Your task to perform on an android device: Toggle the flashlight Image 0: 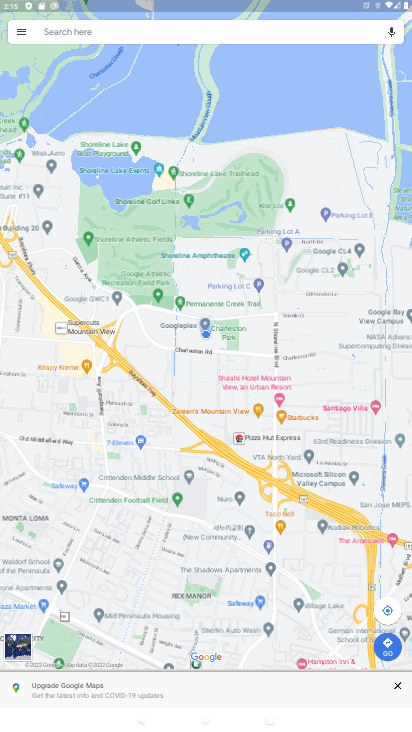
Step 0: press home button
Your task to perform on an android device: Toggle the flashlight Image 1: 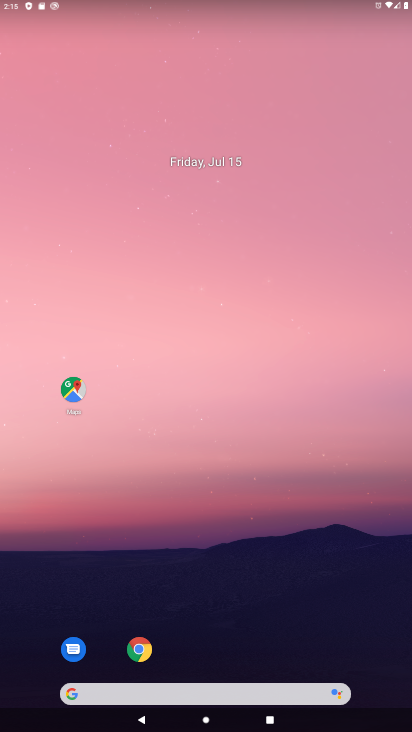
Step 1: drag from (183, 666) to (150, 224)
Your task to perform on an android device: Toggle the flashlight Image 2: 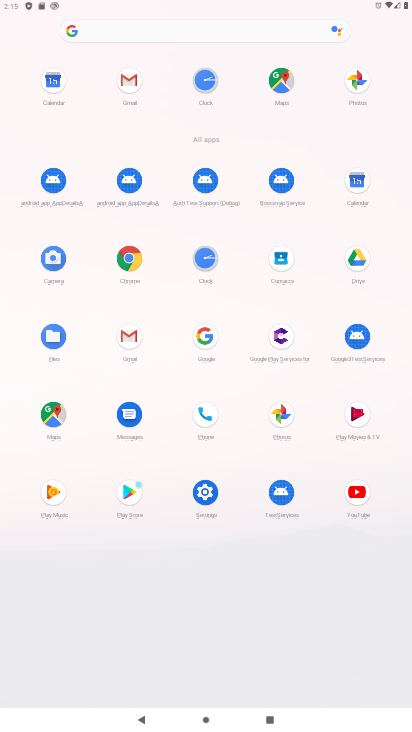
Step 2: click (208, 491)
Your task to perform on an android device: Toggle the flashlight Image 3: 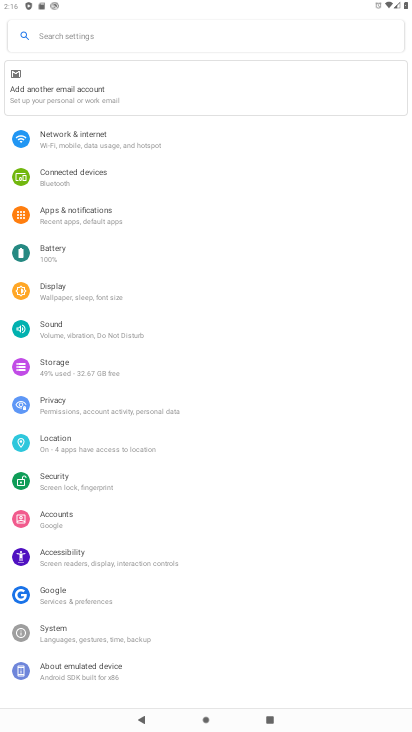
Step 3: task complete